Your task to perform on an android device: Open Chrome and go to the settings page Image 0: 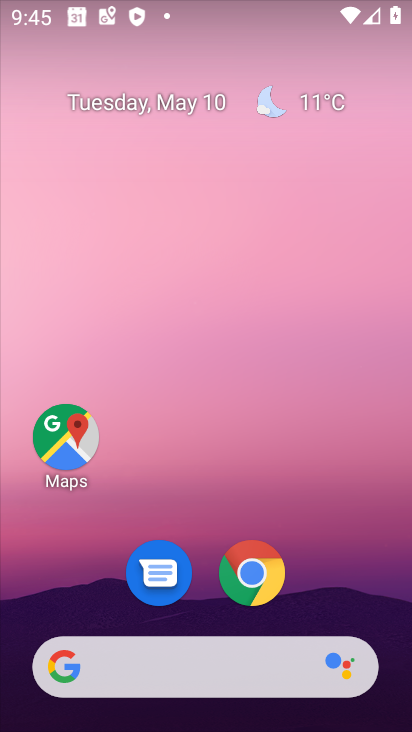
Step 0: click (254, 580)
Your task to perform on an android device: Open Chrome and go to the settings page Image 1: 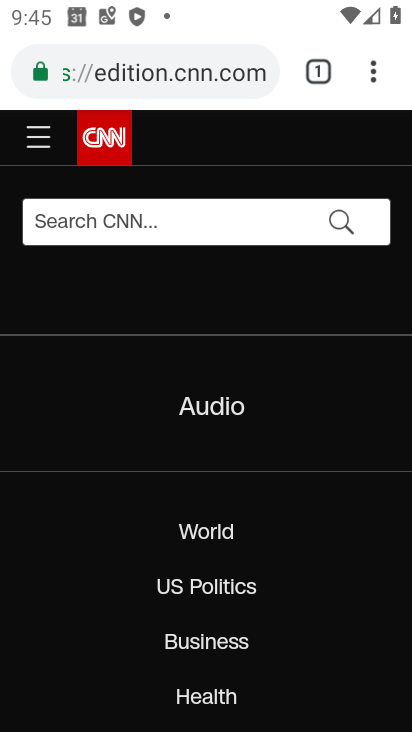
Step 1: task complete